Your task to perform on an android device: empty trash in google photos Image 0: 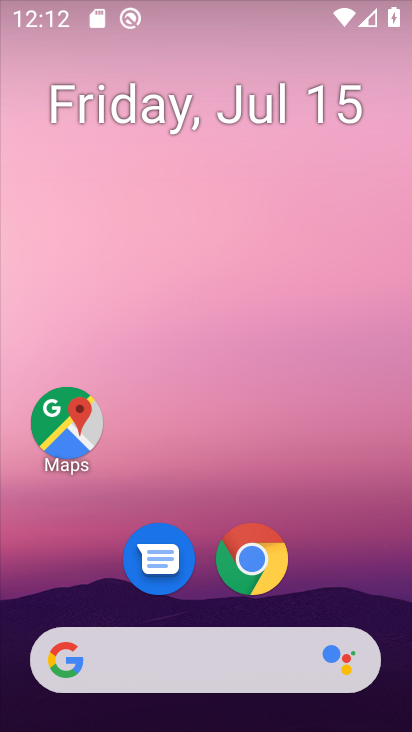
Step 0: drag from (381, 567) to (407, 271)
Your task to perform on an android device: empty trash in google photos Image 1: 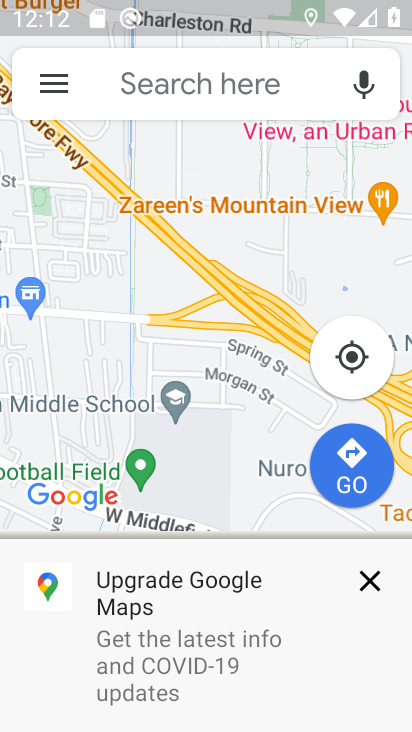
Step 1: press home button
Your task to perform on an android device: empty trash in google photos Image 2: 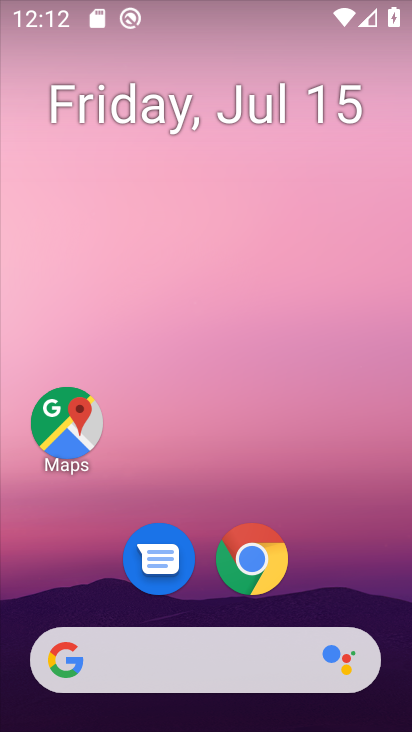
Step 2: drag from (366, 586) to (395, 172)
Your task to perform on an android device: empty trash in google photos Image 3: 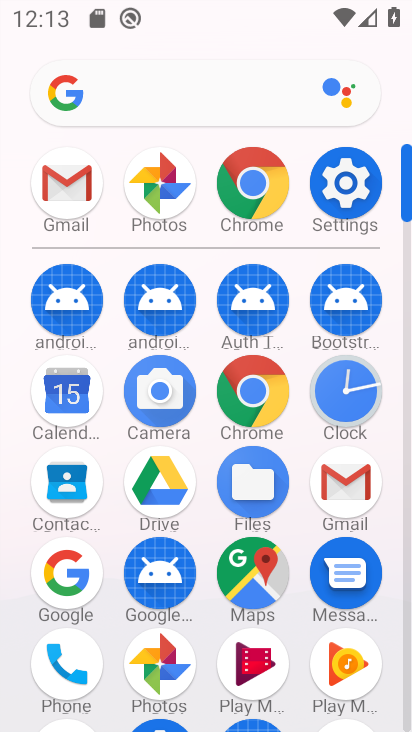
Step 3: click (176, 199)
Your task to perform on an android device: empty trash in google photos Image 4: 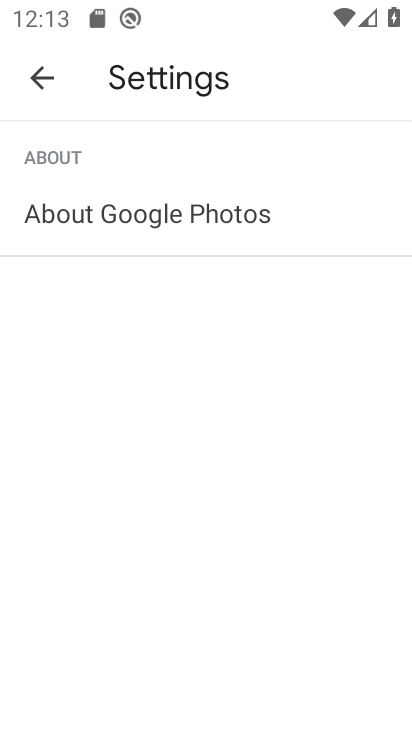
Step 4: press back button
Your task to perform on an android device: empty trash in google photos Image 5: 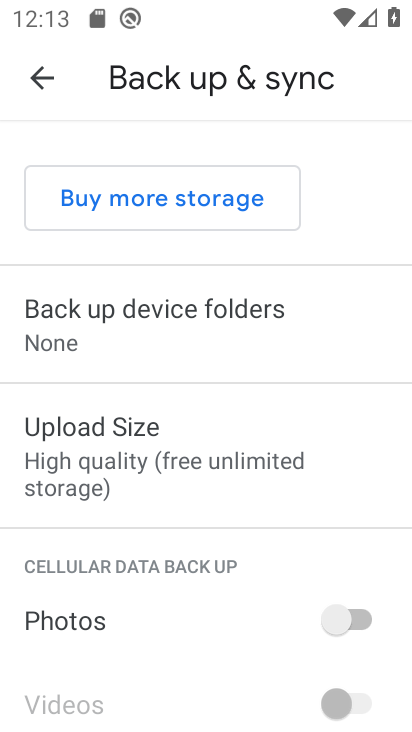
Step 5: press back button
Your task to perform on an android device: empty trash in google photos Image 6: 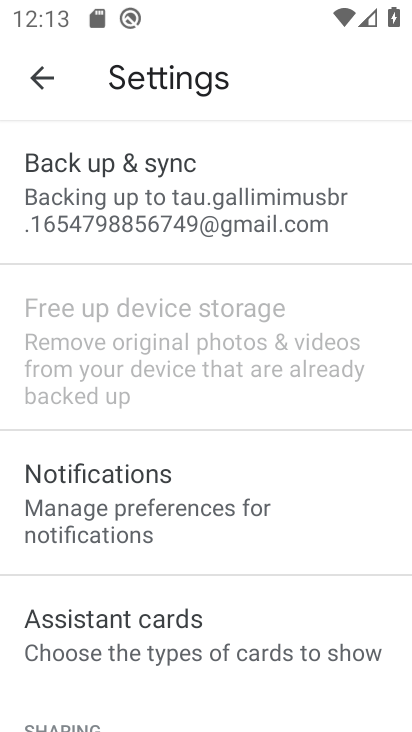
Step 6: press back button
Your task to perform on an android device: empty trash in google photos Image 7: 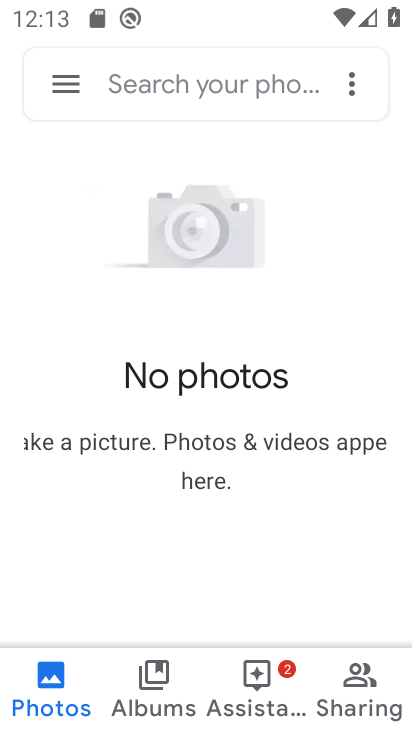
Step 7: click (61, 85)
Your task to perform on an android device: empty trash in google photos Image 8: 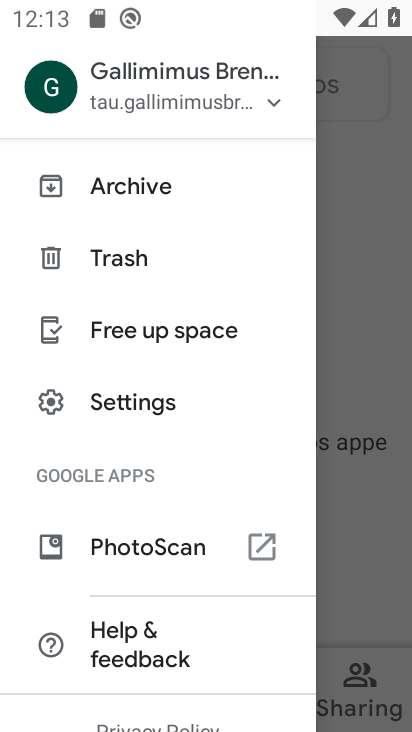
Step 8: click (149, 267)
Your task to perform on an android device: empty trash in google photos Image 9: 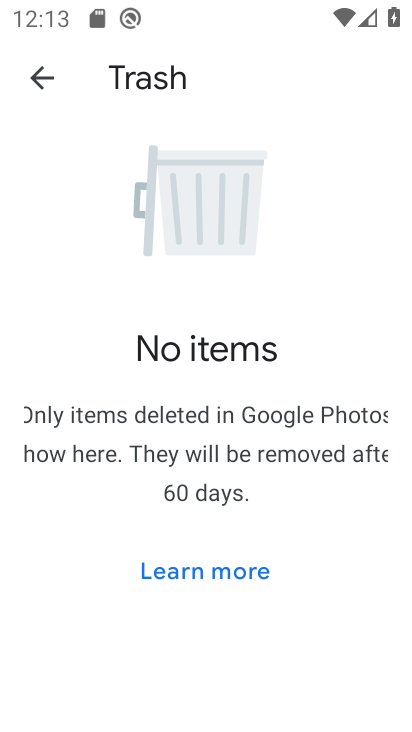
Step 9: task complete